Your task to perform on an android device: turn off data saver in the chrome app Image 0: 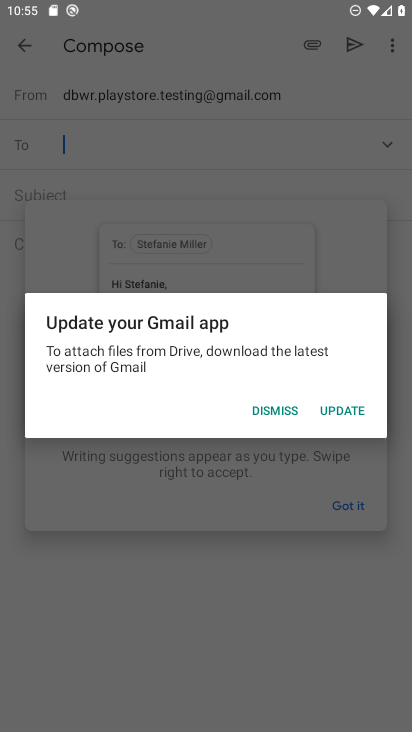
Step 0: click (339, 498)
Your task to perform on an android device: turn off data saver in the chrome app Image 1: 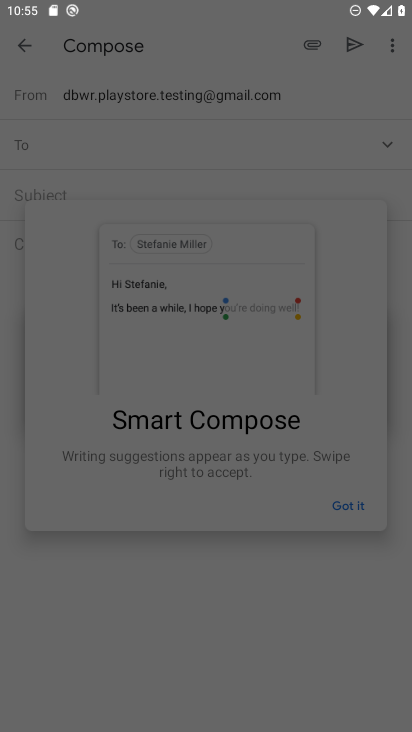
Step 1: click (283, 393)
Your task to perform on an android device: turn off data saver in the chrome app Image 2: 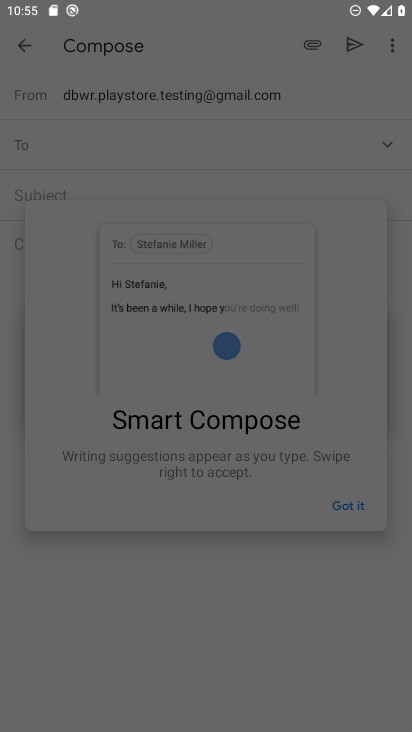
Step 2: click (333, 500)
Your task to perform on an android device: turn off data saver in the chrome app Image 3: 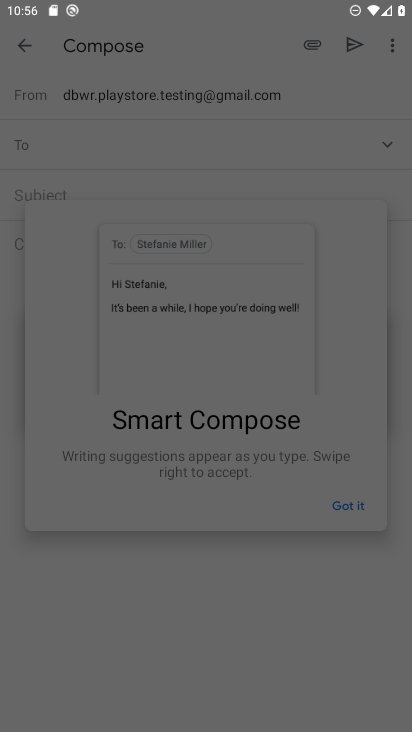
Step 3: press back button
Your task to perform on an android device: turn off data saver in the chrome app Image 4: 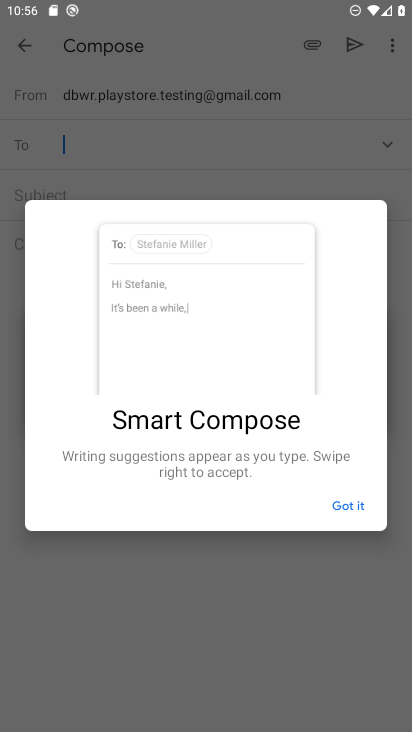
Step 4: click (352, 506)
Your task to perform on an android device: turn off data saver in the chrome app Image 5: 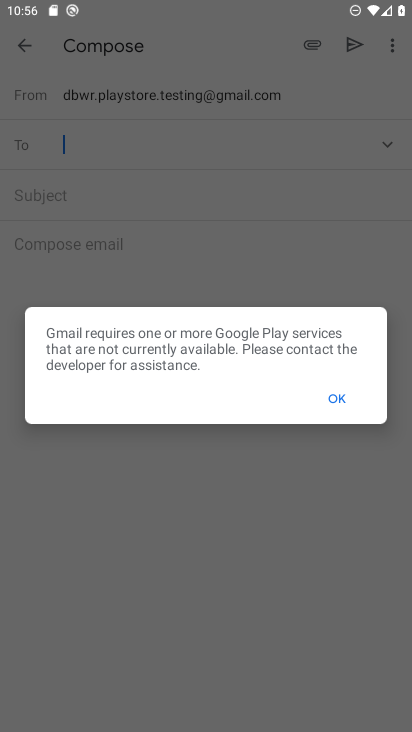
Step 5: click (336, 395)
Your task to perform on an android device: turn off data saver in the chrome app Image 6: 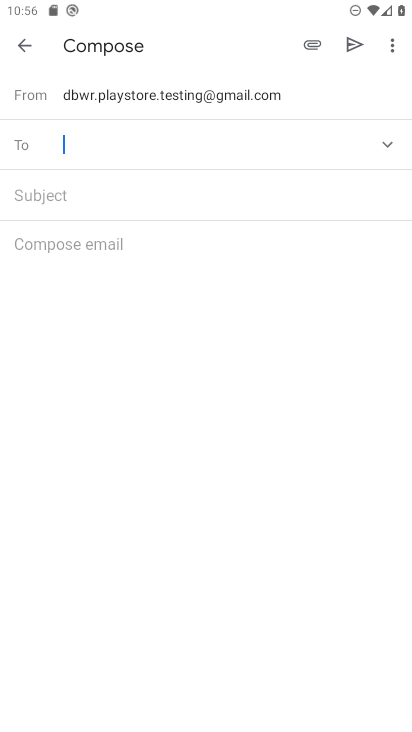
Step 6: click (19, 35)
Your task to perform on an android device: turn off data saver in the chrome app Image 7: 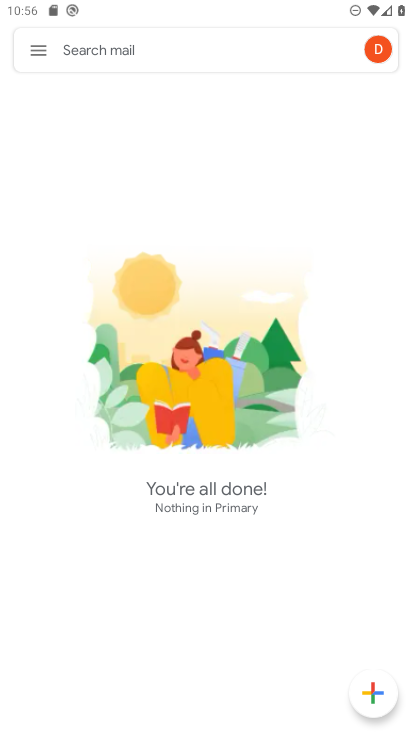
Step 7: press home button
Your task to perform on an android device: turn off data saver in the chrome app Image 8: 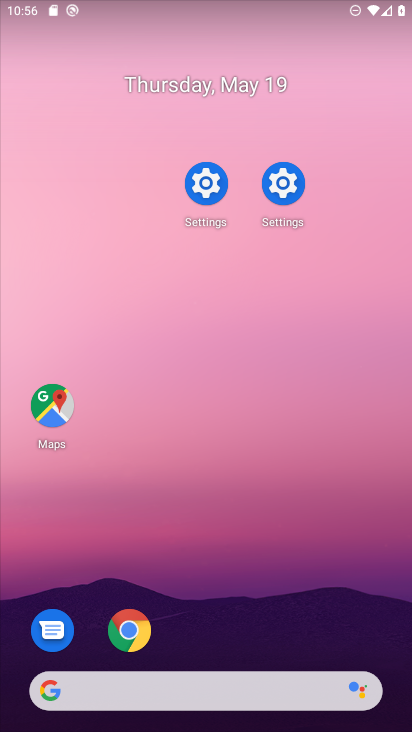
Step 8: drag from (256, 614) to (151, 130)
Your task to perform on an android device: turn off data saver in the chrome app Image 9: 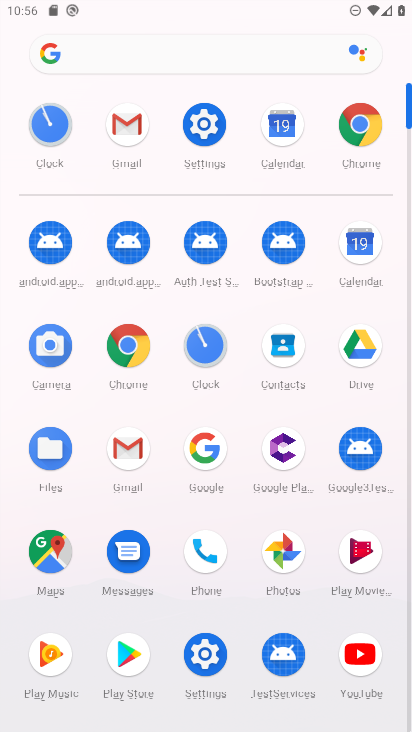
Step 9: click (359, 131)
Your task to perform on an android device: turn off data saver in the chrome app Image 10: 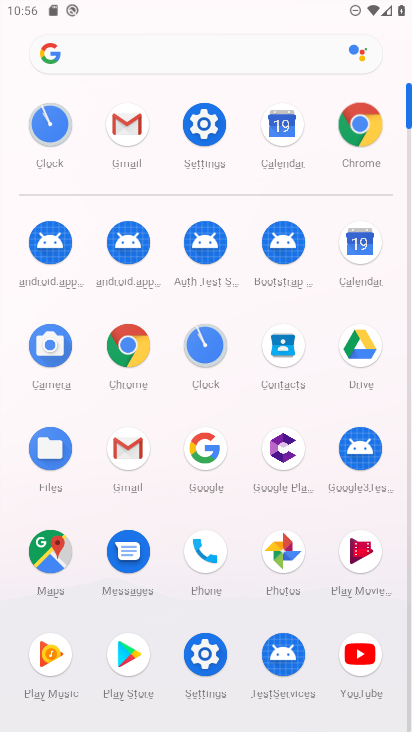
Step 10: click (359, 131)
Your task to perform on an android device: turn off data saver in the chrome app Image 11: 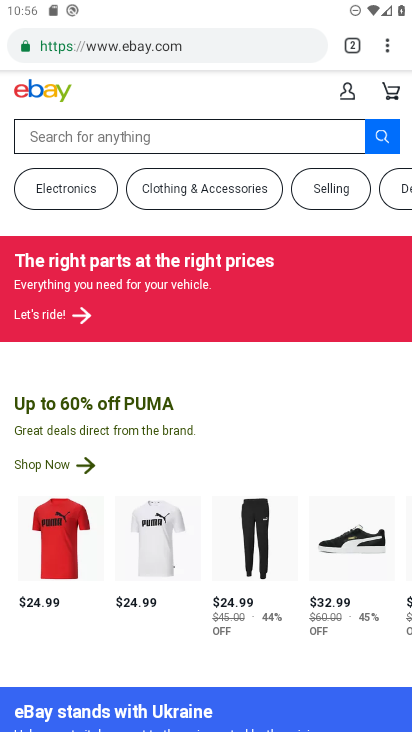
Step 11: drag from (385, 49) to (216, 551)
Your task to perform on an android device: turn off data saver in the chrome app Image 12: 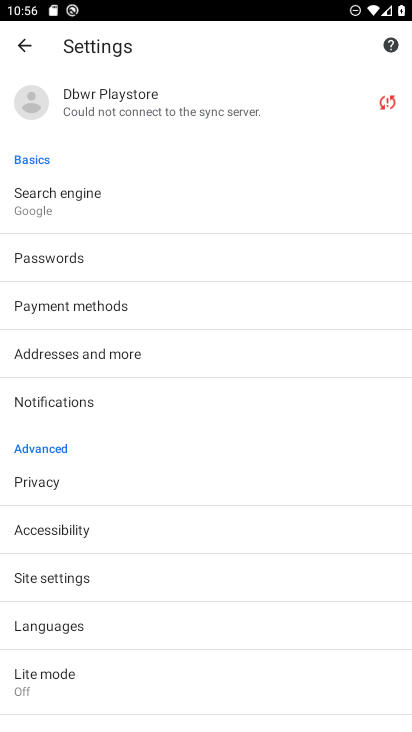
Step 12: click (32, 660)
Your task to perform on an android device: turn off data saver in the chrome app Image 13: 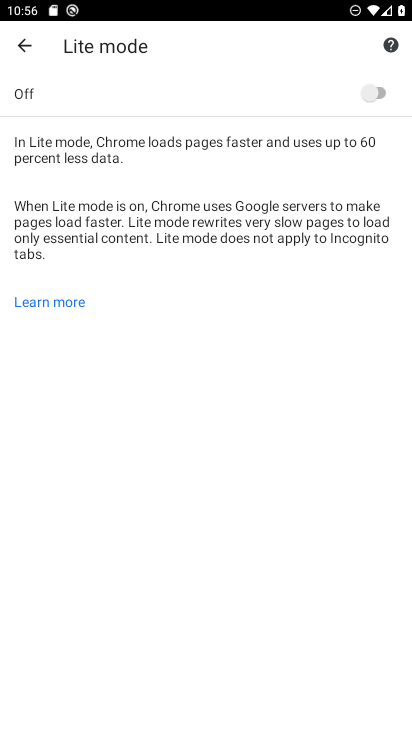
Step 13: task complete